Your task to perform on an android device: turn on priority inbox in the gmail app Image 0: 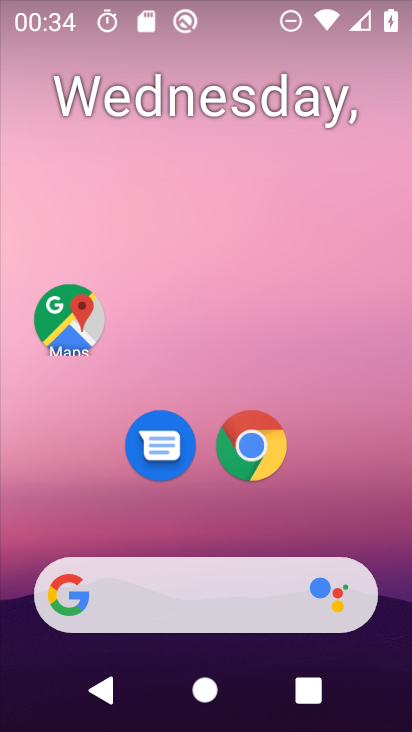
Step 0: drag from (262, 512) to (400, 0)
Your task to perform on an android device: turn on priority inbox in the gmail app Image 1: 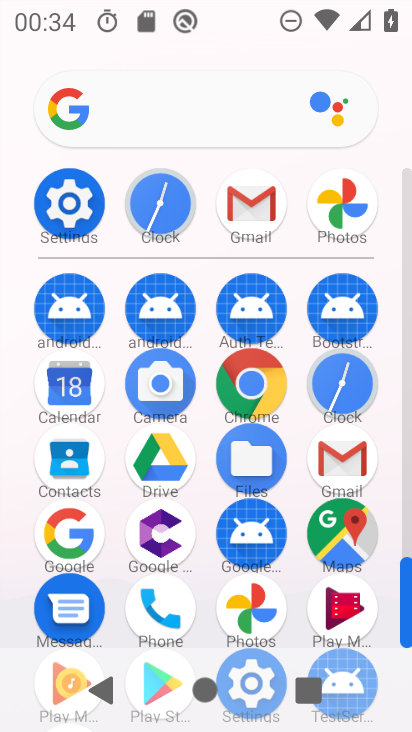
Step 1: click (267, 195)
Your task to perform on an android device: turn on priority inbox in the gmail app Image 2: 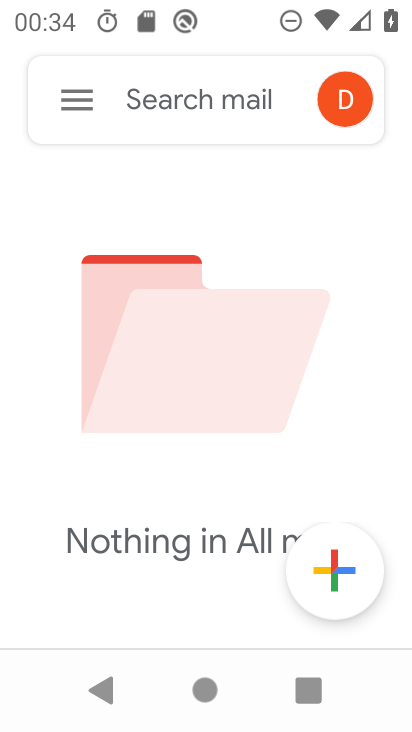
Step 2: click (59, 122)
Your task to perform on an android device: turn on priority inbox in the gmail app Image 3: 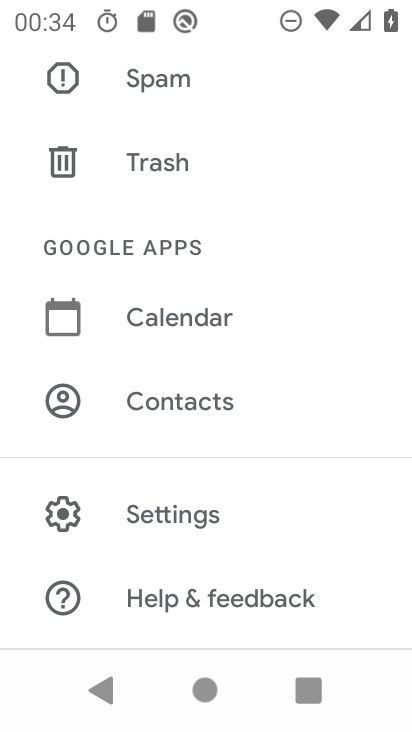
Step 3: click (203, 504)
Your task to perform on an android device: turn on priority inbox in the gmail app Image 4: 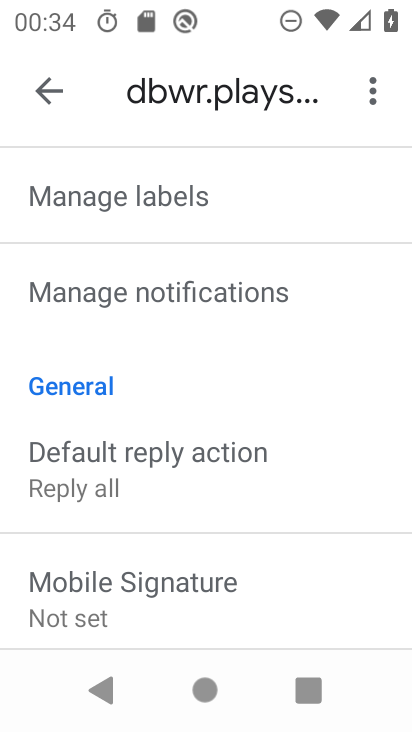
Step 4: drag from (198, 323) to (266, 551)
Your task to perform on an android device: turn on priority inbox in the gmail app Image 5: 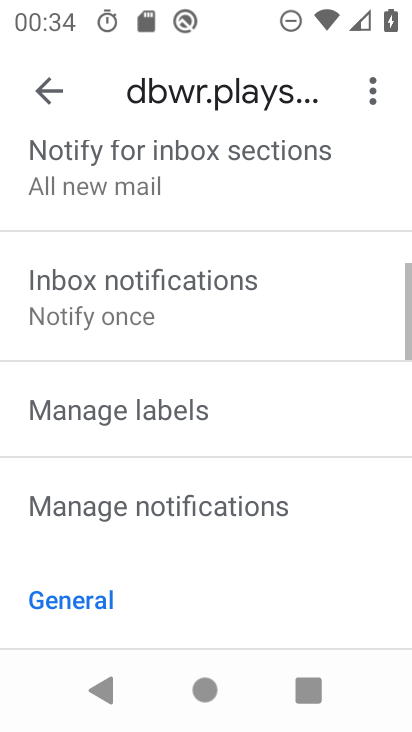
Step 5: drag from (262, 291) to (267, 566)
Your task to perform on an android device: turn on priority inbox in the gmail app Image 6: 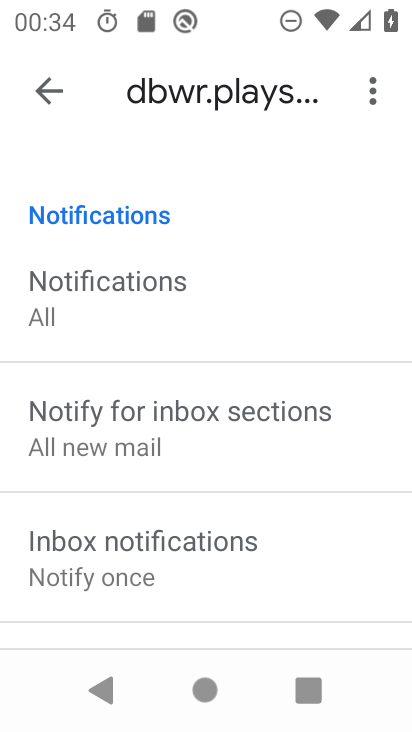
Step 6: drag from (118, 240) to (103, 495)
Your task to perform on an android device: turn on priority inbox in the gmail app Image 7: 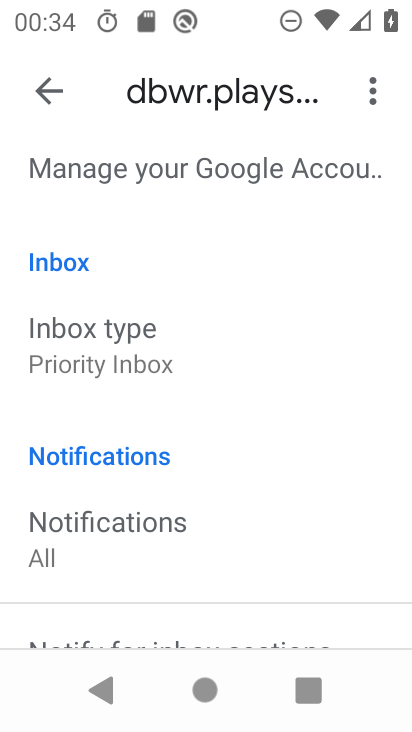
Step 7: click (141, 350)
Your task to perform on an android device: turn on priority inbox in the gmail app Image 8: 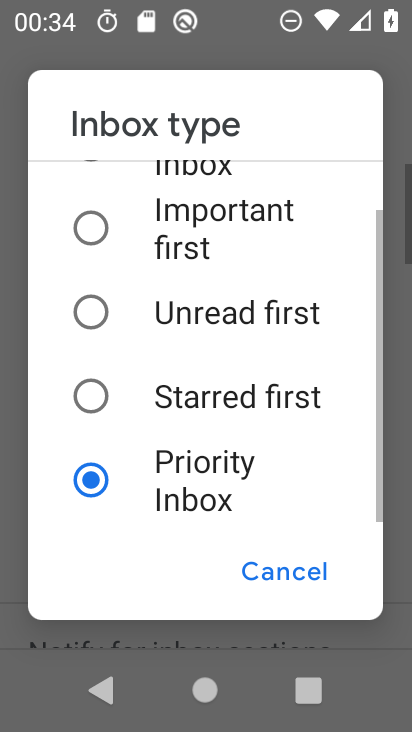
Step 8: click (129, 504)
Your task to perform on an android device: turn on priority inbox in the gmail app Image 9: 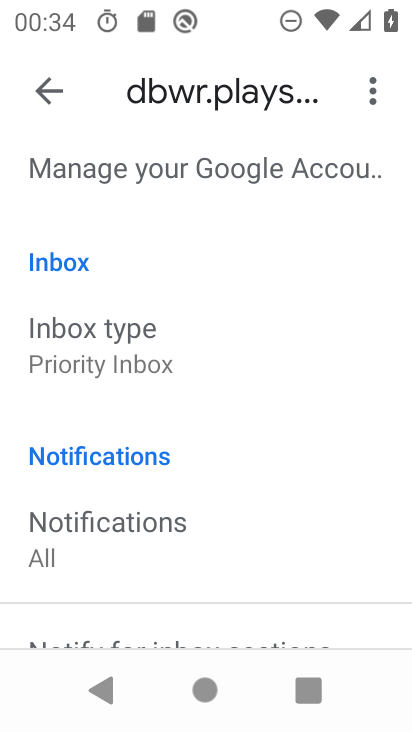
Step 9: task complete